Your task to perform on an android device: uninstall "Google Chrome" Image 0: 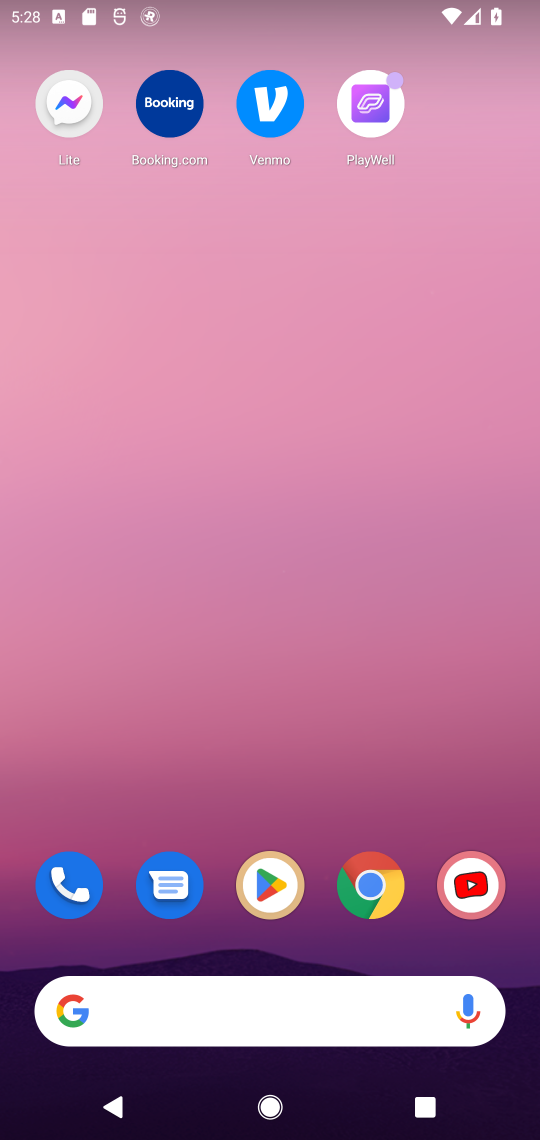
Step 0: click (261, 881)
Your task to perform on an android device: uninstall "Google Chrome" Image 1: 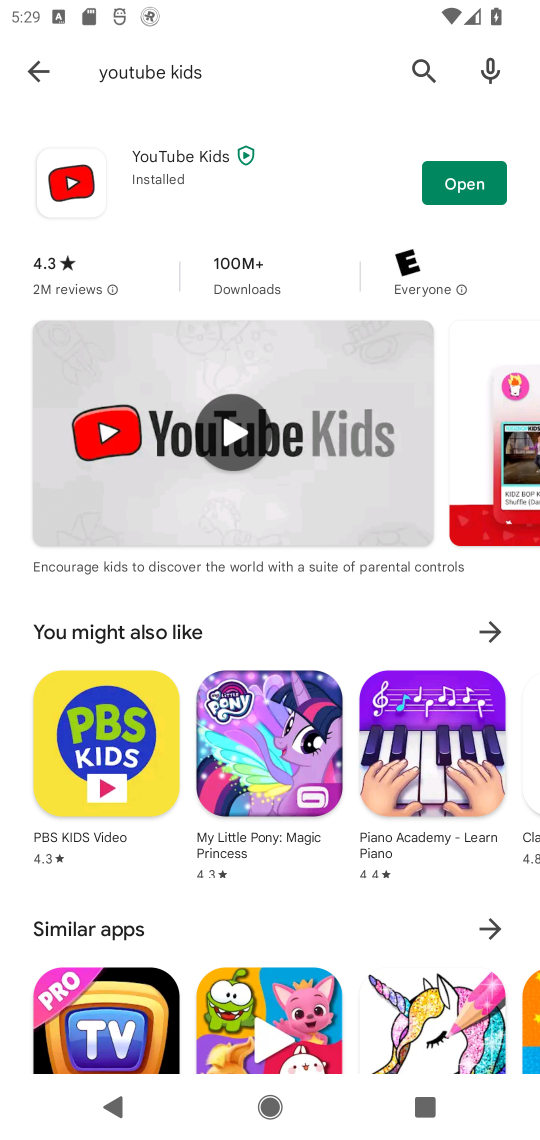
Step 1: click (430, 76)
Your task to perform on an android device: uninstall "Google Chrome" Image 2: 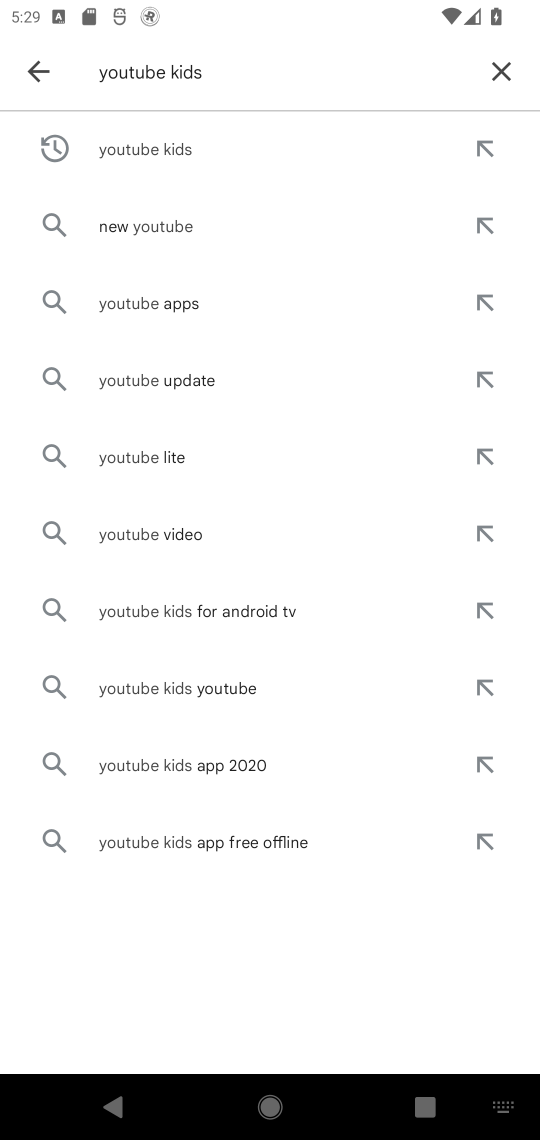
Step 2: click (507, 62)
Your task to perform on an android device: uninstall "Google Chrome" Image 3: 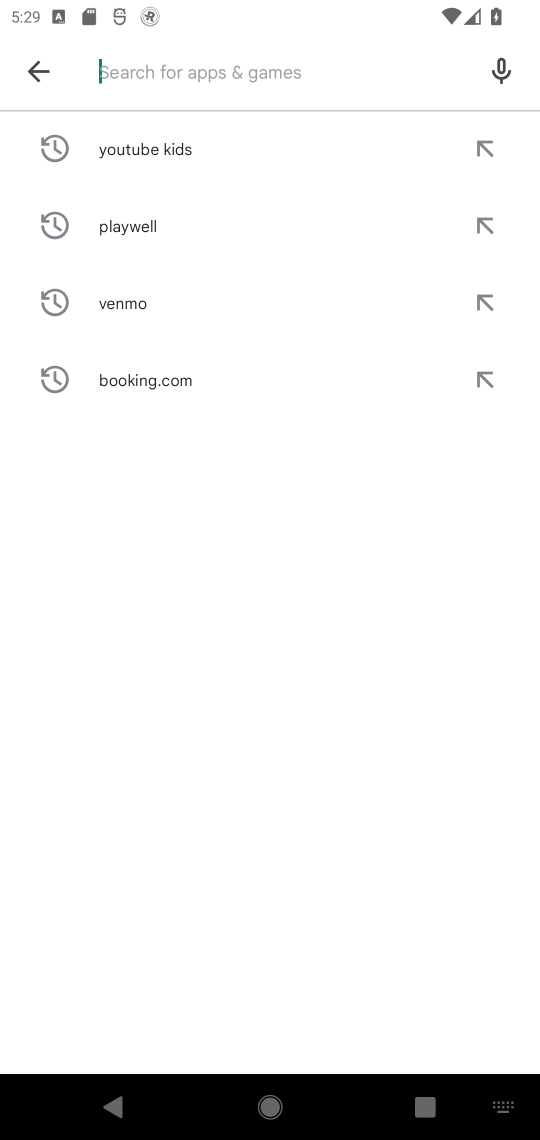
Step 3: click (200, 57)
Your task to perform on an android device: uninstall "Google Chrome" Image 4: 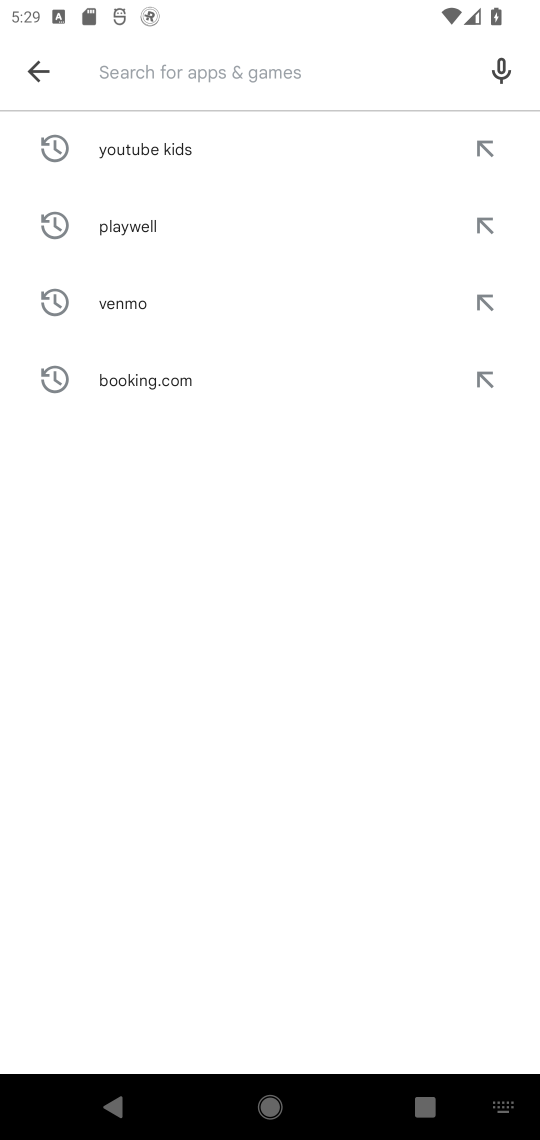
Step 4: type "Google Chrome"
Your task to perform on an android device: uninstall "Google Chrome" Image 5: 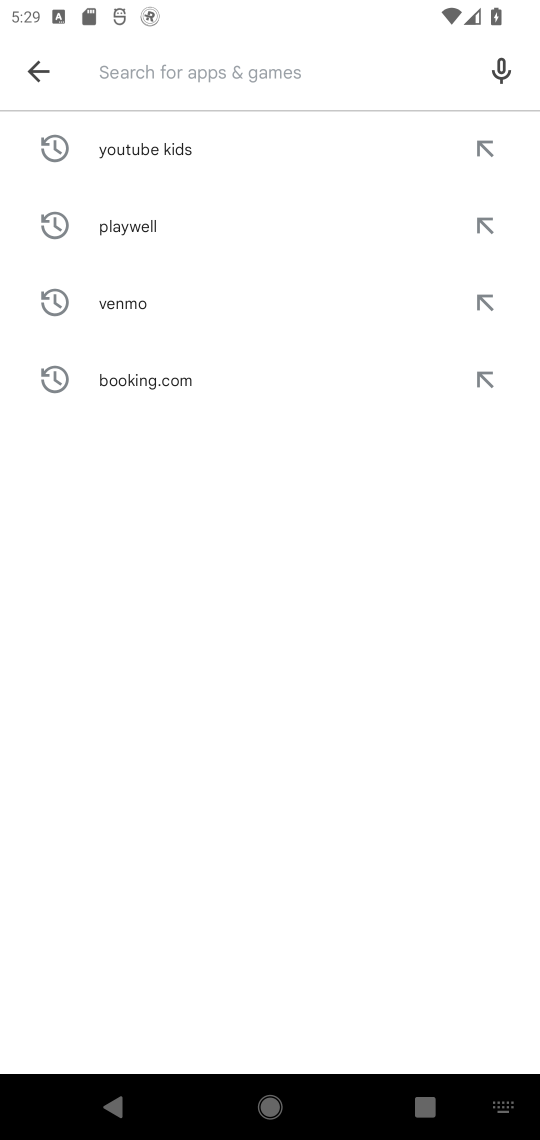
Step 5: click (368, 716)
Your task to perform on an android device: uninstall "Google Chrome" Image 6: 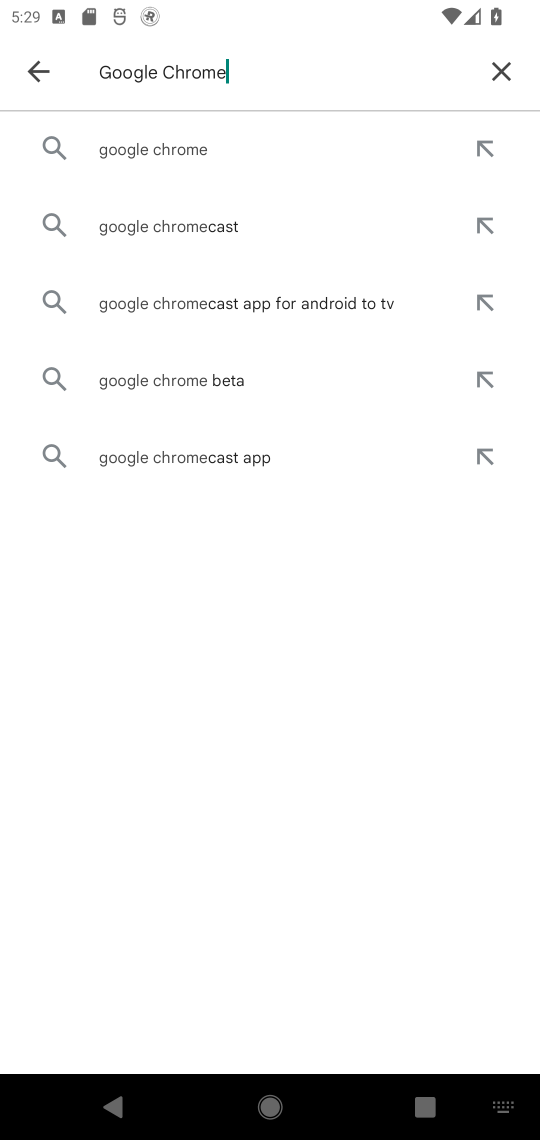
Step 6: click (221, 151)
Your task to perform on an android device: uninstall "Google Chrome" Image 7: 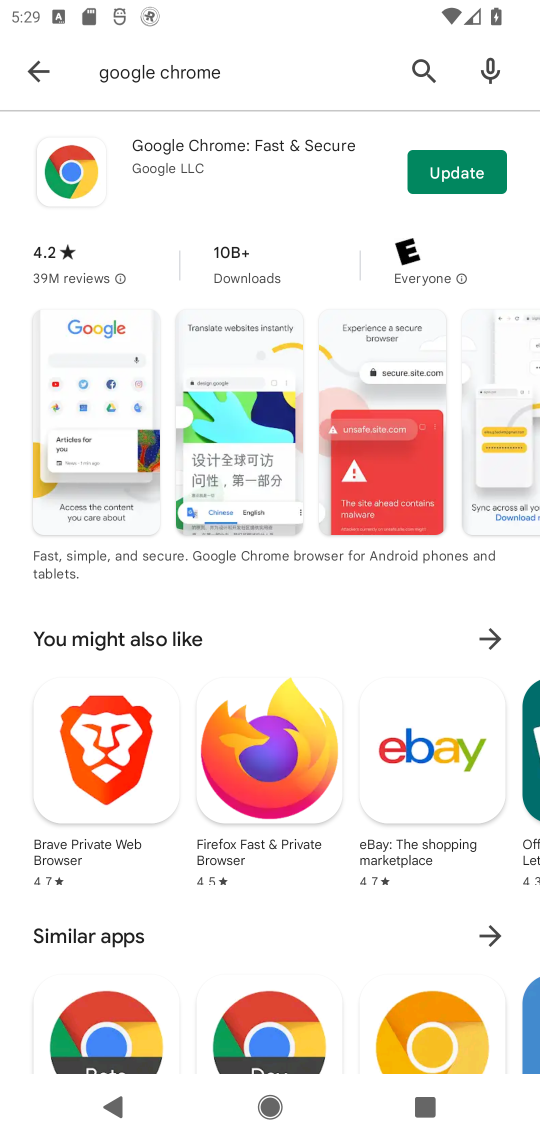
Step 7: click (252, 150)
Your task to perform on an android device: uninstall "Google Chrome" Image 8: 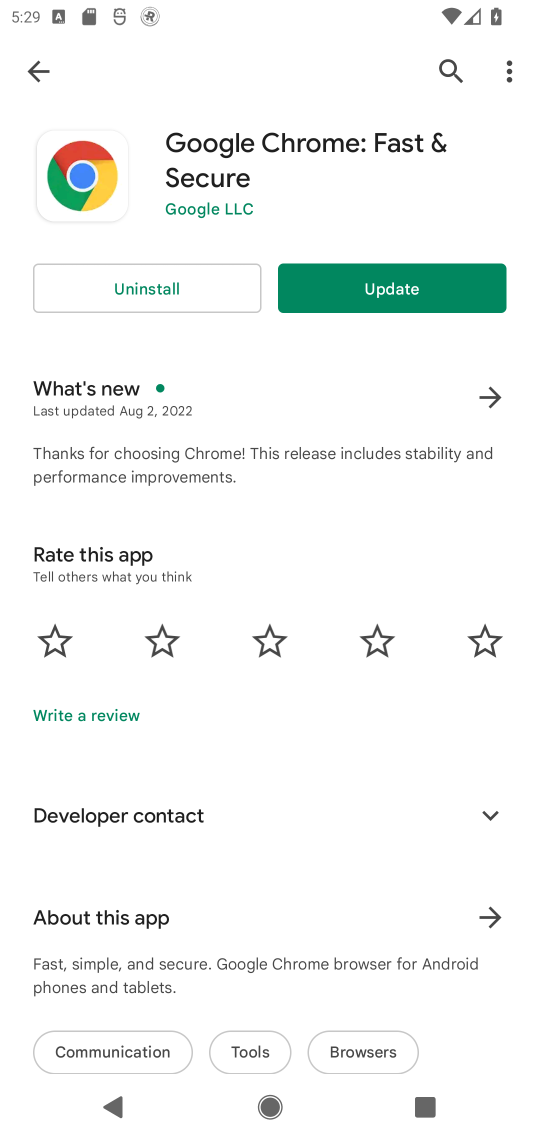
Step 8: click (144, 293)
Your task to perform on an android device: uninstall "Google Chrome" Image 9: 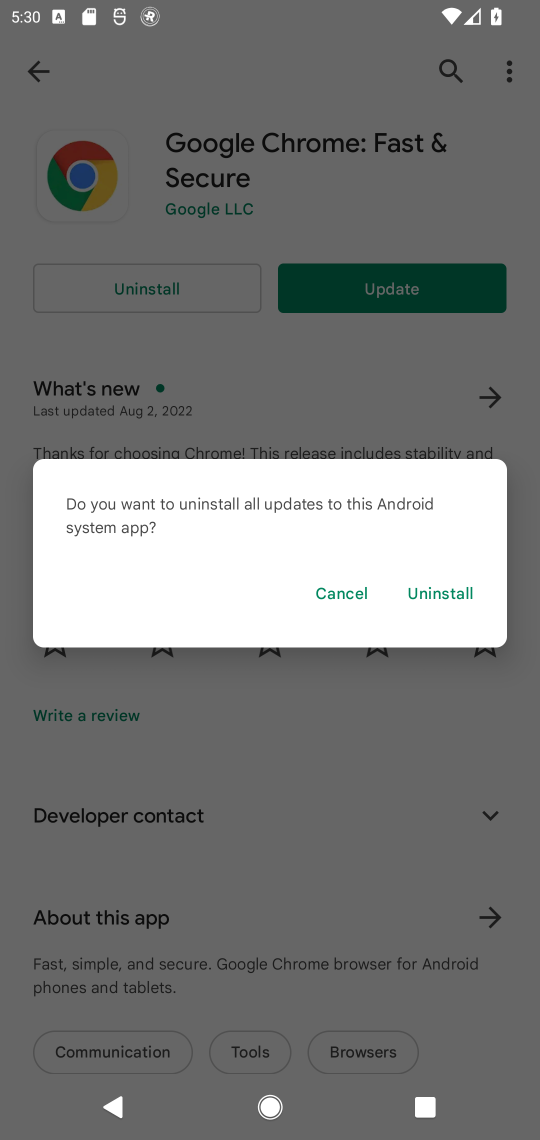
Step 9: click (434, 587)
Your task to perform on an android device: uninstall "Google Chrome" Image 10: 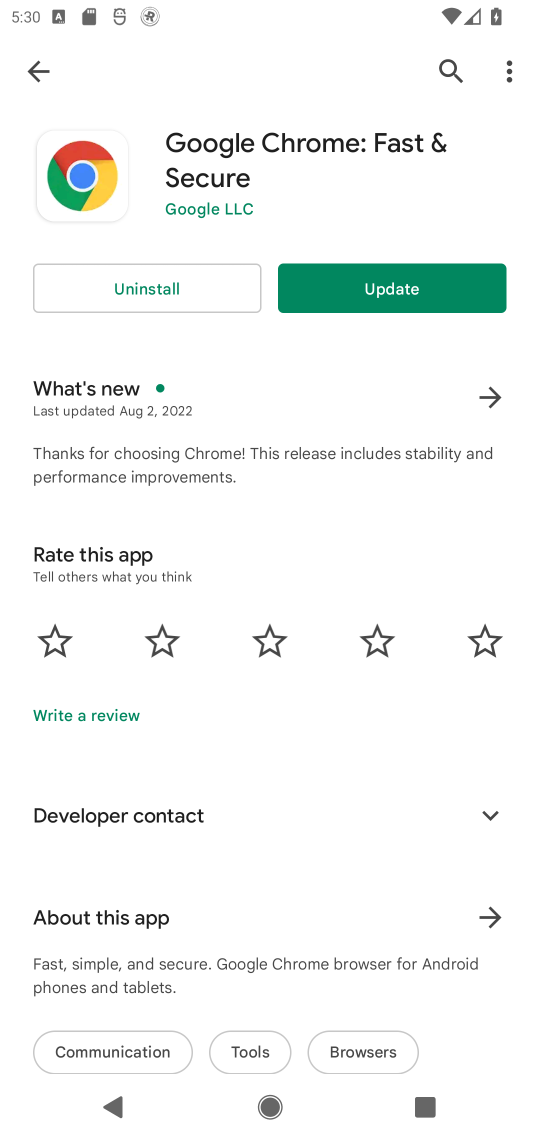
Step 10: click (139, 286)
Your task to perform on an android device: uninstall "Google Chrome" Image 11: 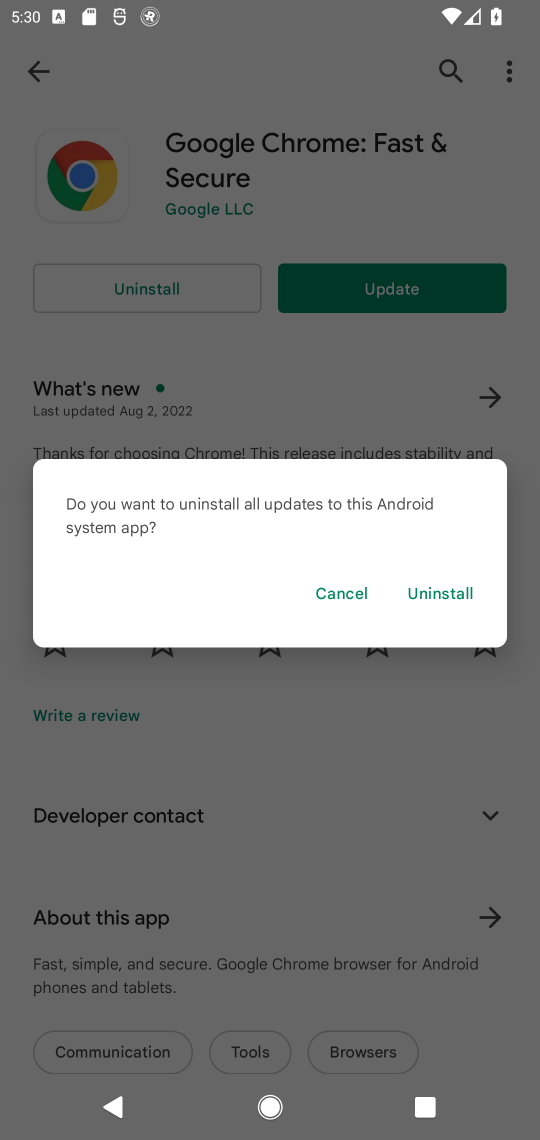
Step 11: click (436, 592)
Your task to perform on an android device: uninstall "Google Chrome" Image 12: 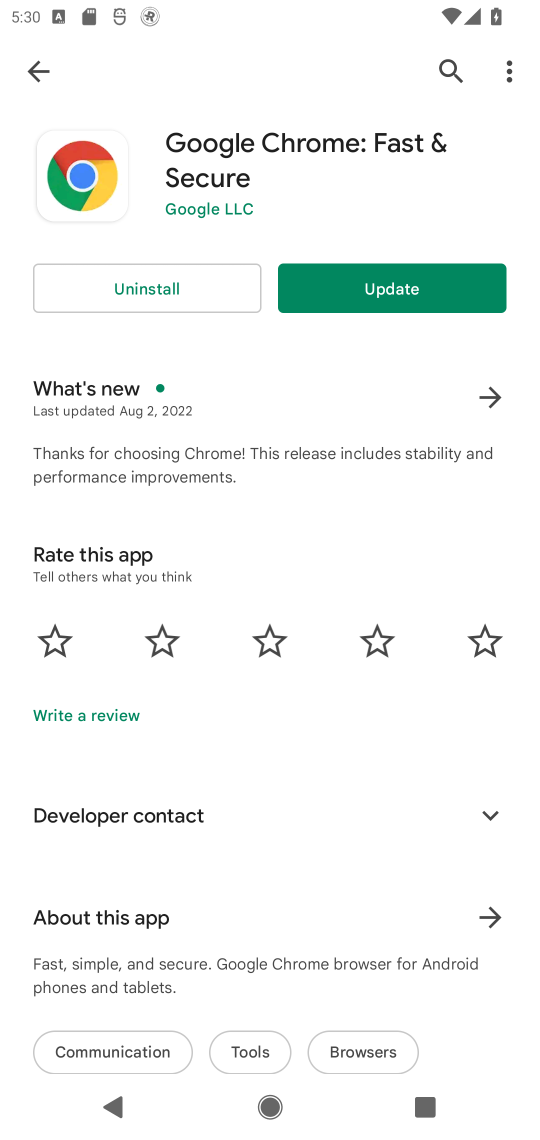
Step 12: task complete